Your task to perform on an android device: create a new album in the google photos Image 0: 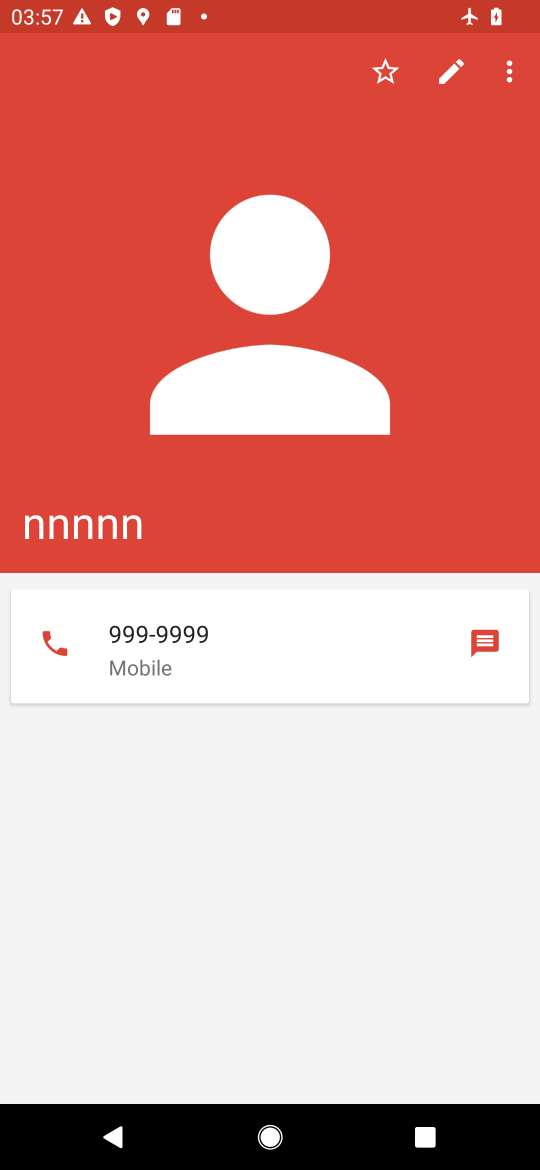
Step 0: press home button
Your task to perform on an android device: create a new album in the google photos Image 1: 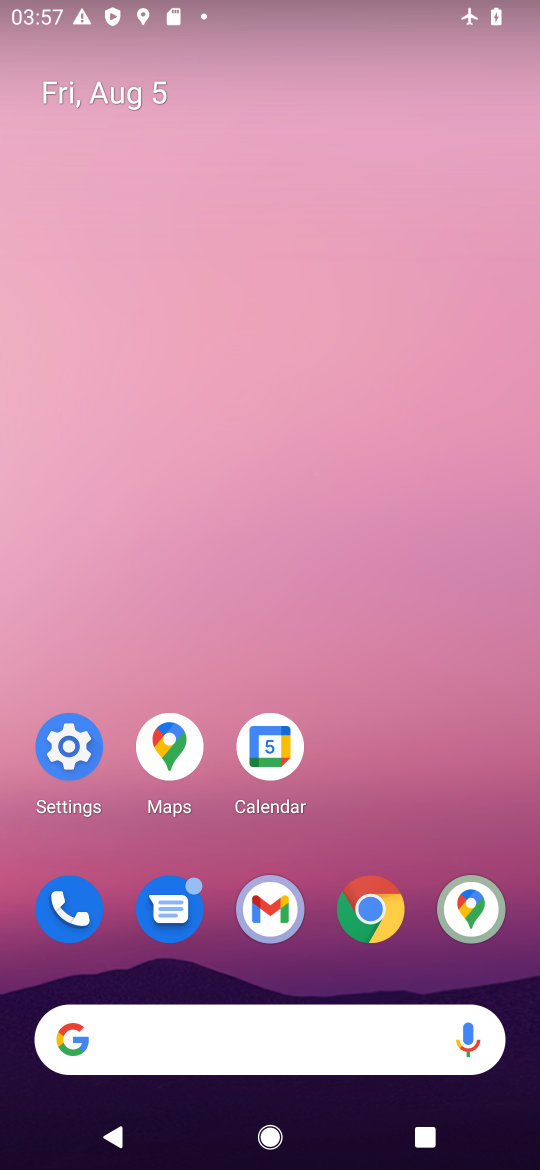
Step 1: drag from (334, 810) to (228, 11)
Your task to perform on an android device: create a new album in the google photos Image 2: 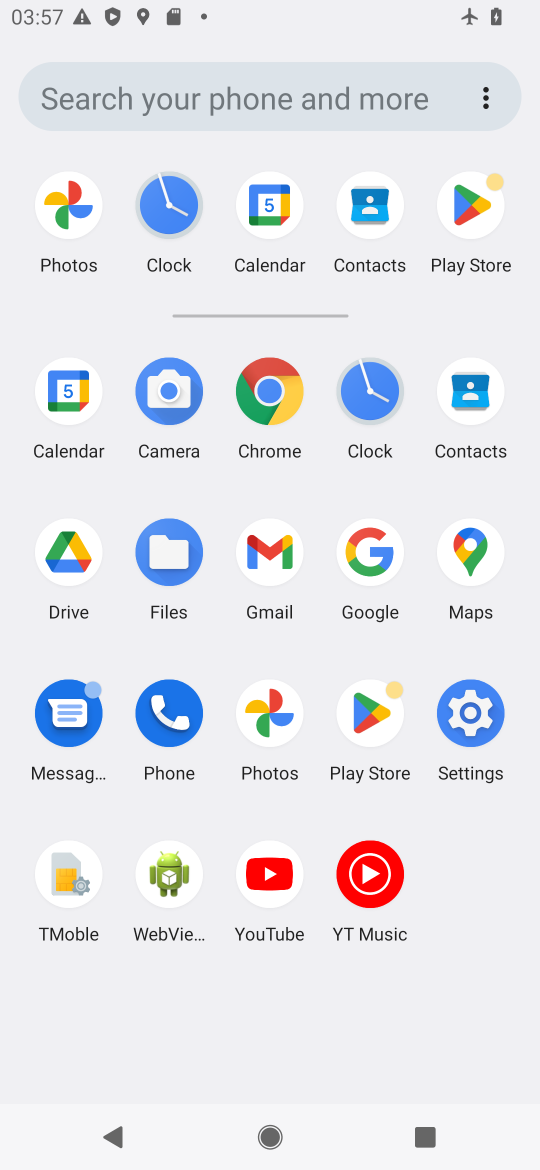
Step 2: click (67, 196)
Your task to perform on an android device: create a new album in the google photos Image 3: 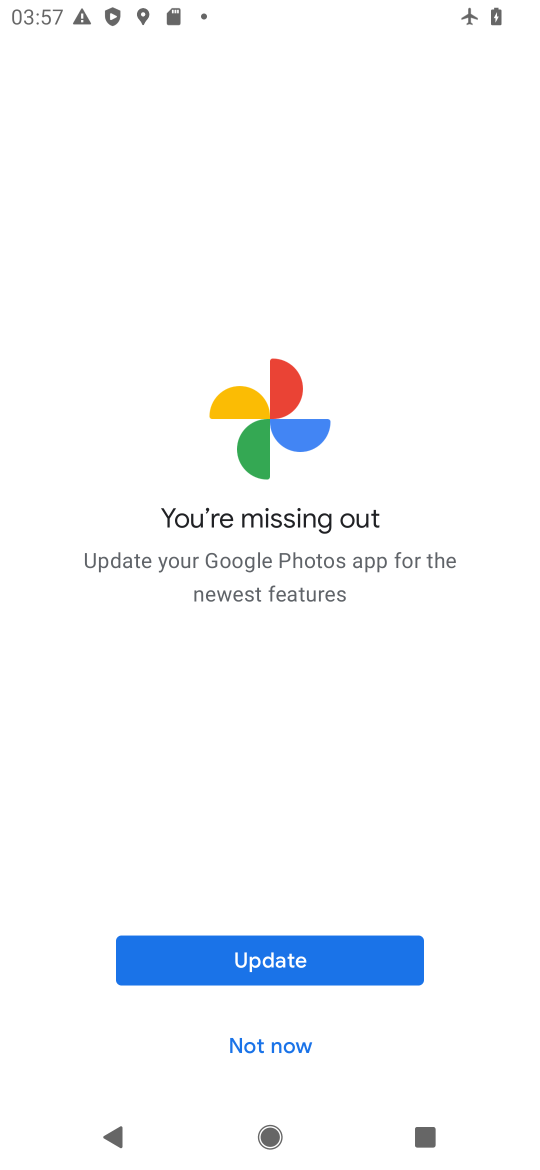
Step 3: click (274, 970)
Your task to perform on an android device: create a new album in the google photos Image 4: 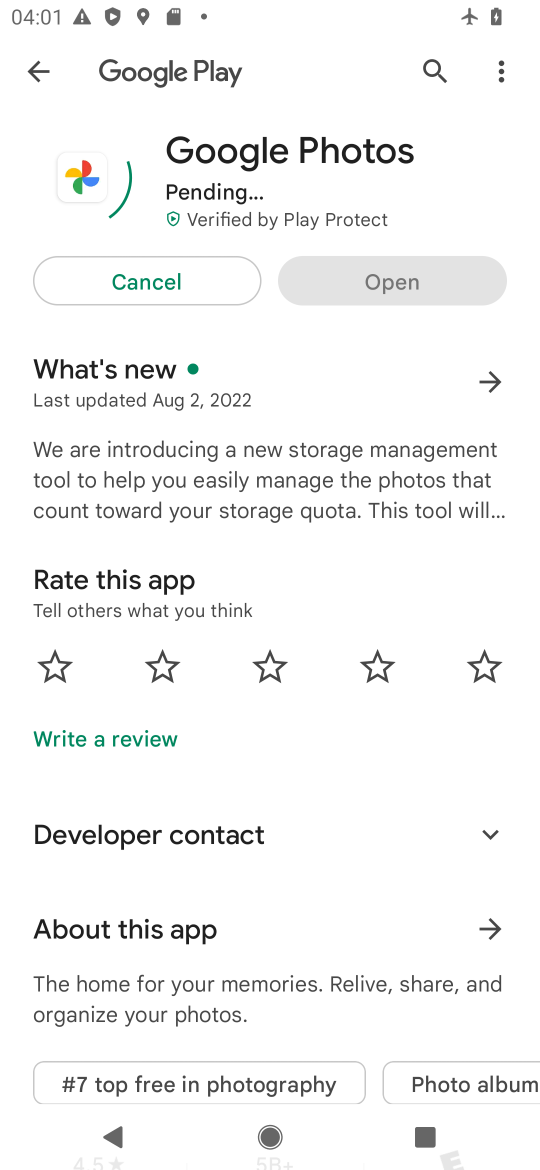
Step 4: task complete